Your task to perform on an android device: turn off sleep mode Image 0: 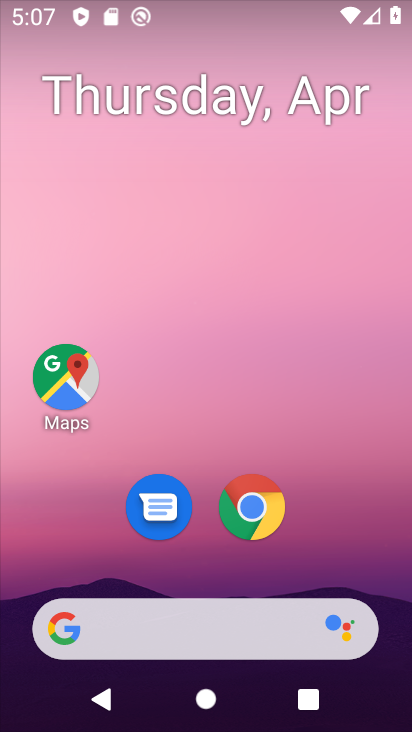
Step 0: drag from (235, 363) to (291, 181)
Your task to perform on an android device: turn off sleep mode Image 1: 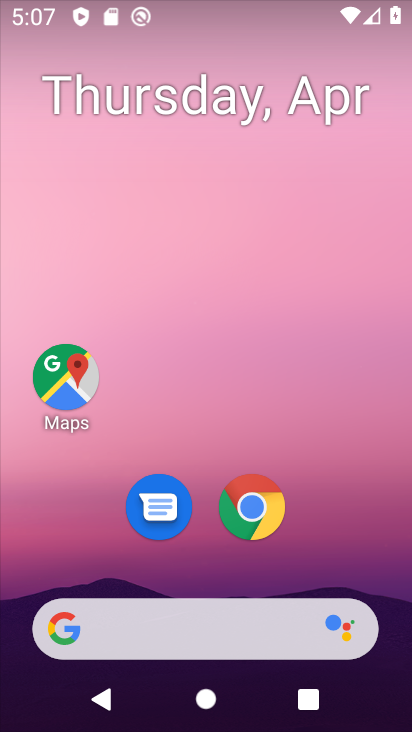
Step 1: task complete